Your task to perform on an android device: Turn on the flashlight Image 0: 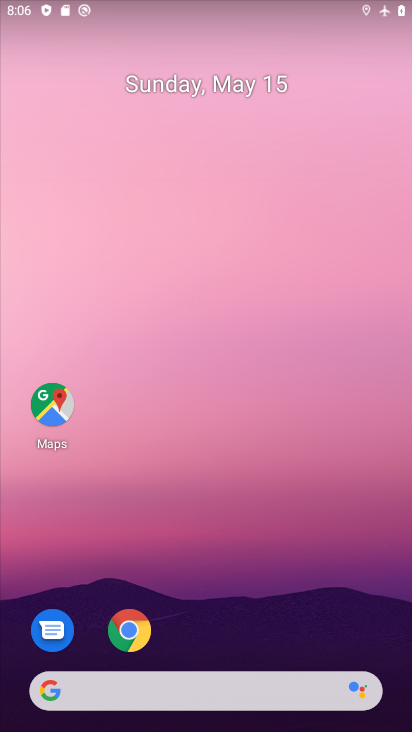
Step 0: drag from (214, 624) to (245, 130)
Your task to perform on an android device: Turn on the flashlight Image 1: 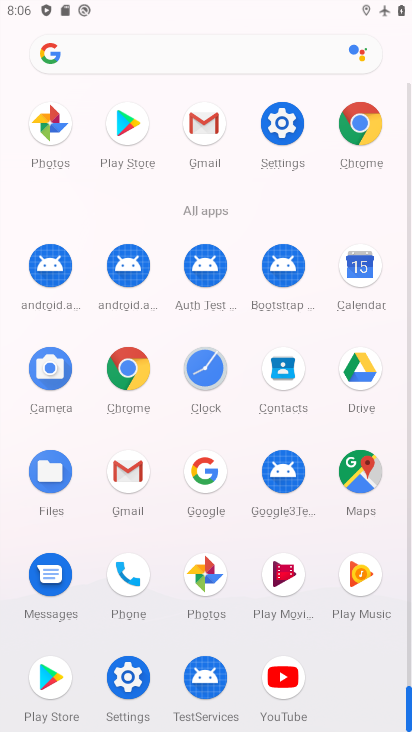
Step 1: click (282, 148)
Your task to perform on an android device: Turn on the flashlight Image 2: 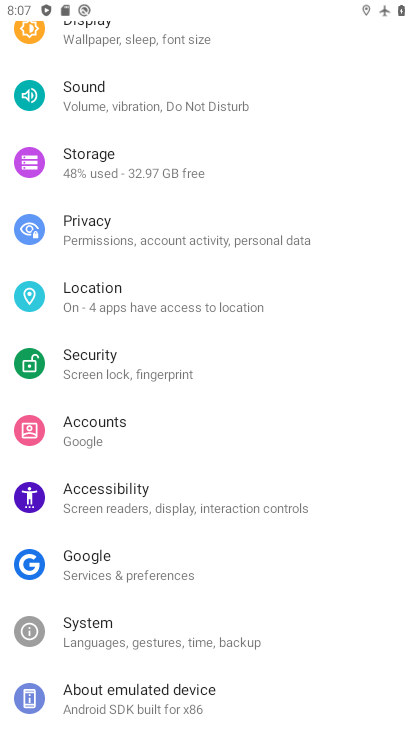
Step 2: drag from (231, 131) to (189, 593)
Your task to perform on an android device: Turn on the flashlight Image 3: 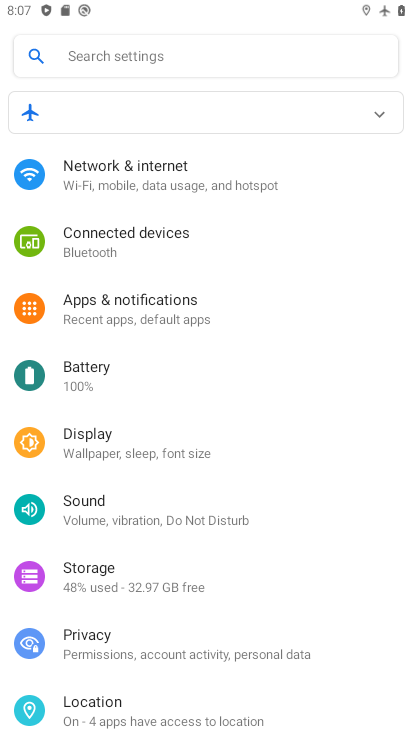
Step 3: click (211, 61)
Your task to perform on an android device: Turn on the flashlight Image 4: 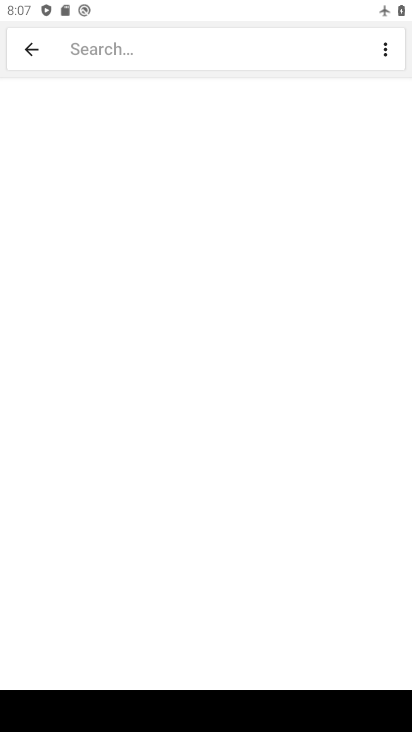
Step 4: type "flashlight"
Your task to perform on an android device: Turn on the flashlight Image 5: 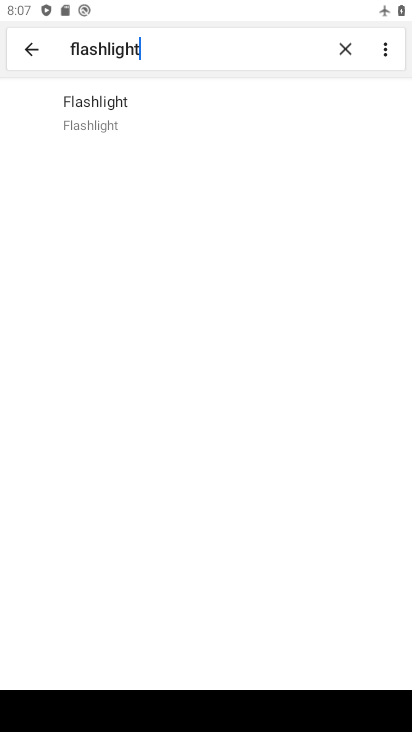
Step 5: click (126, 111)
Your task to perform on an android device: Turn on the flashlight Image 6: 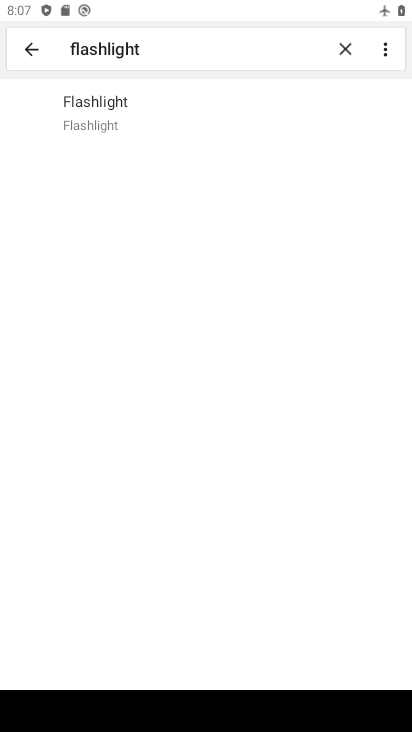
Step 6: click (126, 111)
Your task to perform on an android device: Turn on the flashlight Image 7: 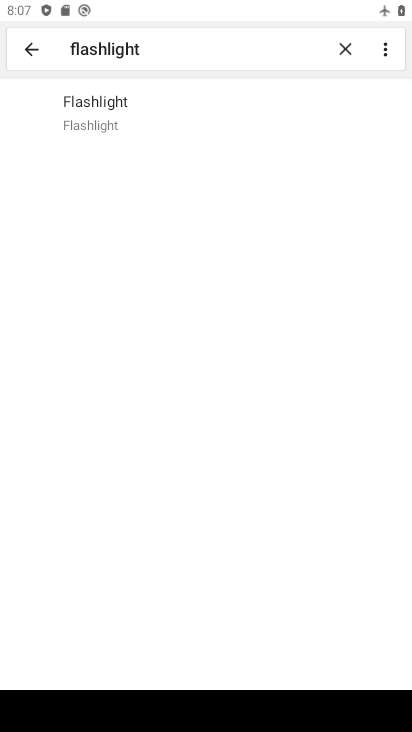
Step 7: task complete